Your task to perform on an android device: choose inbox layout in the gmail app Image 0: 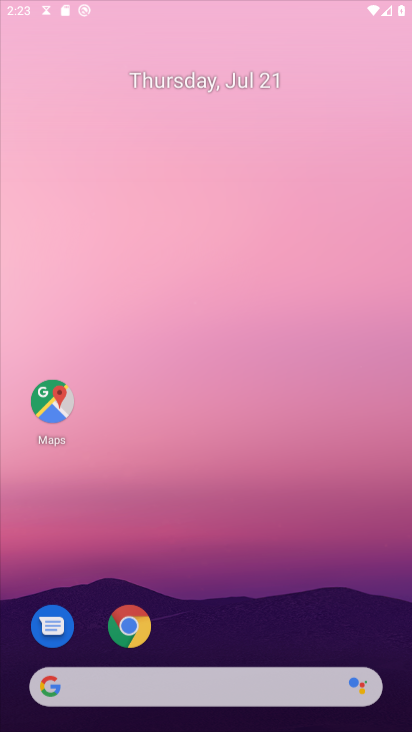
Step 0: click (131, 635)
Your task to perform on an android device: choose inbox layout in the gmail app Image 1: 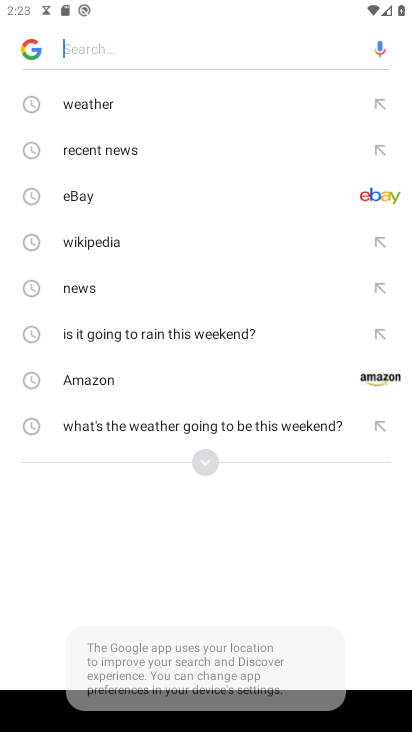
Step 1: click (179, 153)
Your task to perform on an android device: choose inbox layout in the gmail app Image 2: 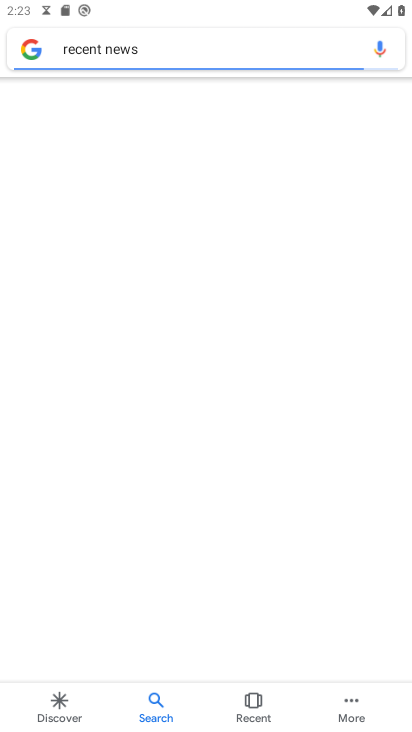
Step 2: press home button
Your task to perform on an android device: choose inbox layout in the gmail app Image 3: 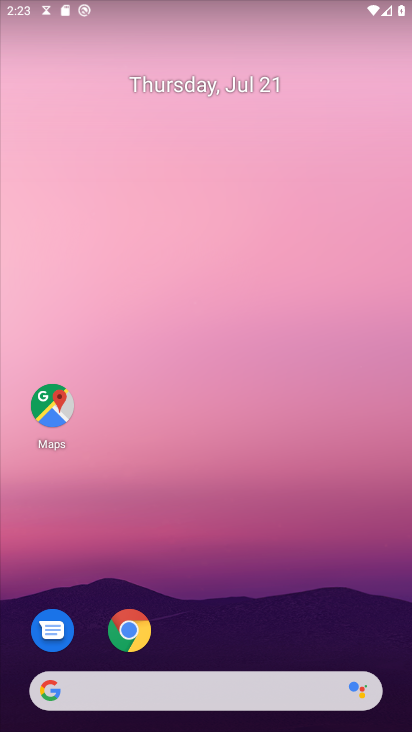
Step 3: drag from (186, 628) to (139, 25)
Your task to perform on an android device: choose inbox layout in the gmail app Image 4: 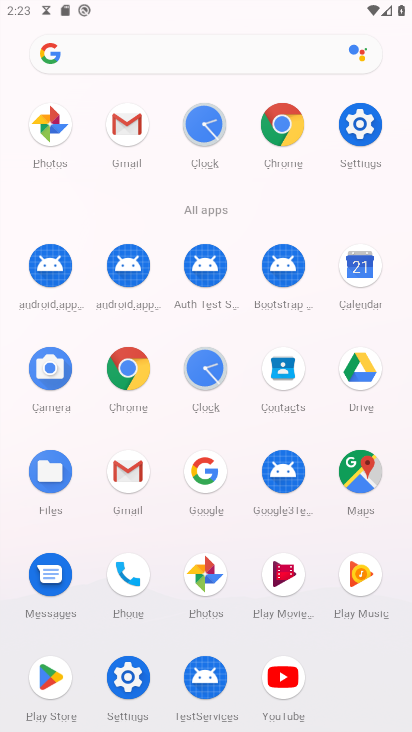
Step 4: click (120, 161)
Your task to perform on an android device: choose inbox layout in the gmail app Image 5: 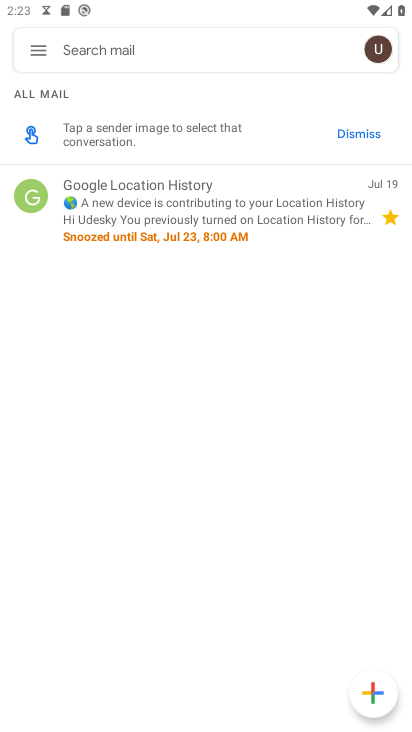
Step 5: click (37, 53)
Your task to perform on an android device: choose inbox layout in the gmail app Image 6: 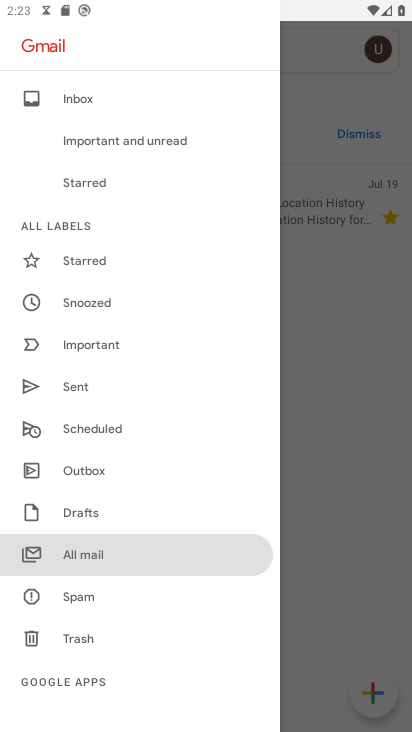
Step 6: drag from (111, 596) to (113, 339)
Your task to perform on an android device: choose inbox layout in the gmail app Image 7: 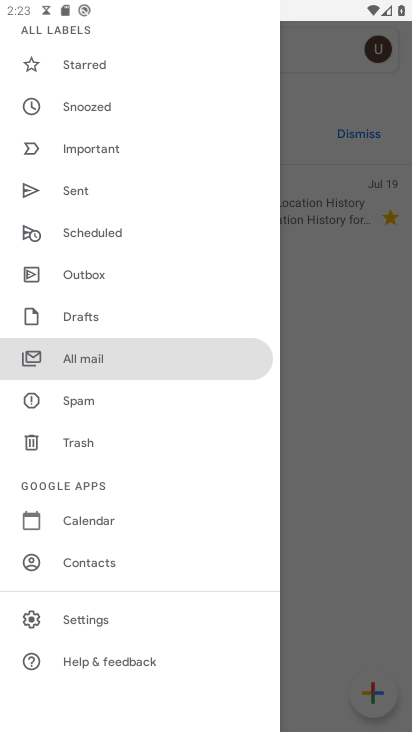
Step 7: click (90, 628)
Your task to perform on an android device: choose inbox layout in the gmail app Image 8: 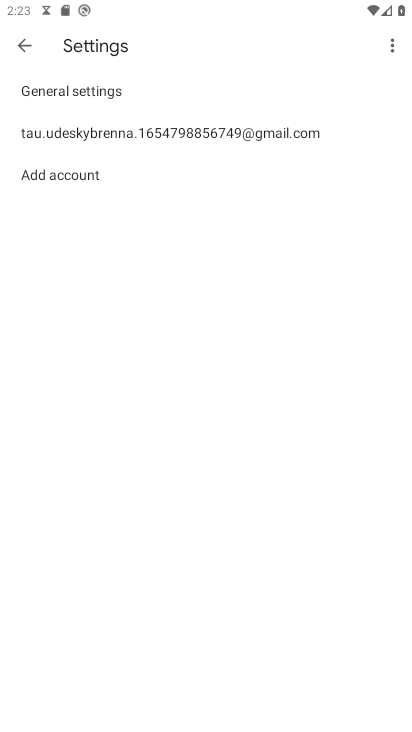
Step 8: click (162, 135)
Your task to perform on an android device: choose inbox layout in the gmail app Image 9: 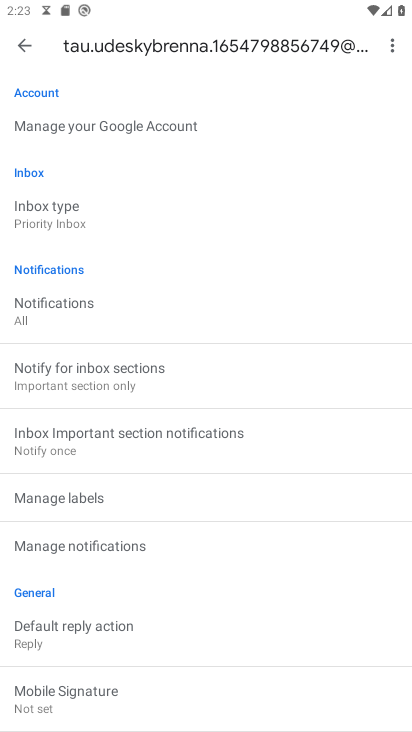
Step 9: click (42, 234)
Your task to perform on an android device: choose inbox layout in the gmail app Image 10: 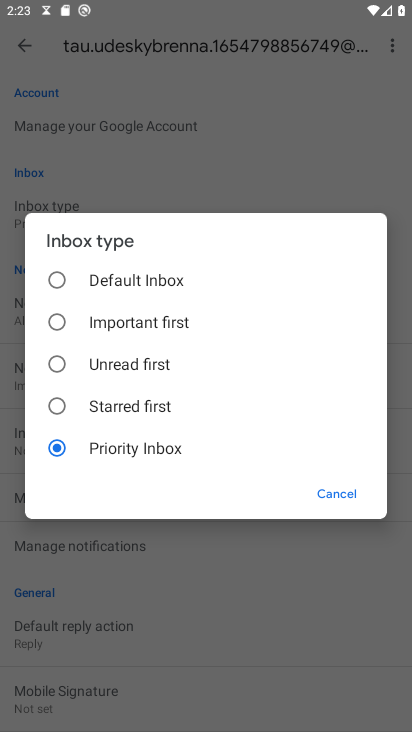
Step 10: click (62, 281)
Your task to perform on an android device: choose inbox layout in the gmail app Image 11: 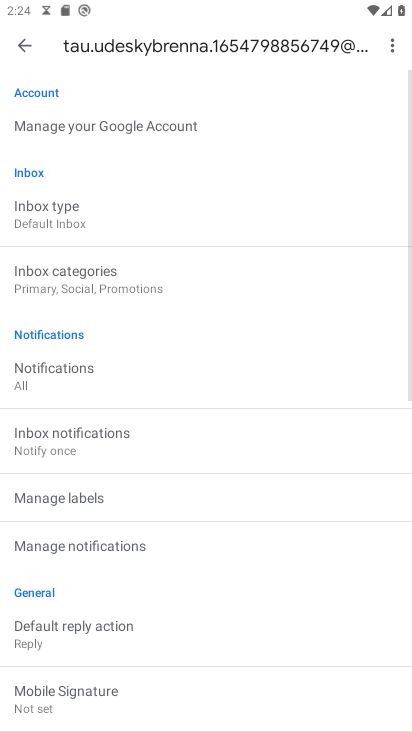
Step 11: task complete